Your task to perform on an android device: Open Yahoo.com Image 0: 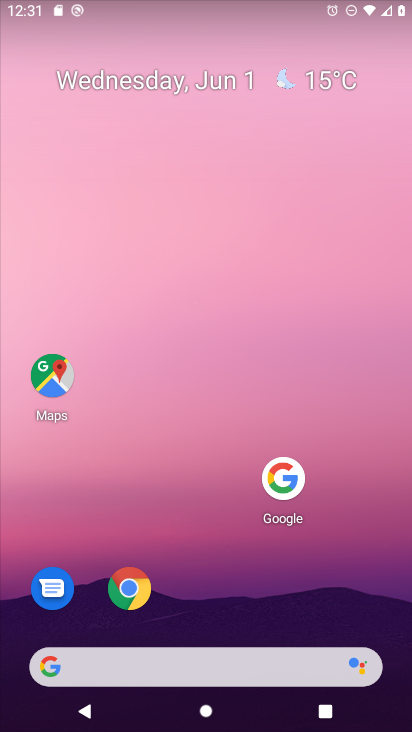
Step 0: press home button
Your task to perform on an android device: Open Yahoo.com Image 1: 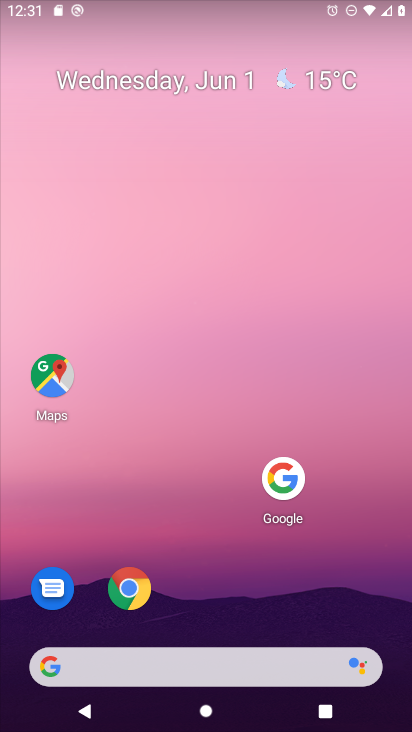
Step 1: click (124, 581)
Your task to perform on an android device: Open Yahoo.com Image 2: 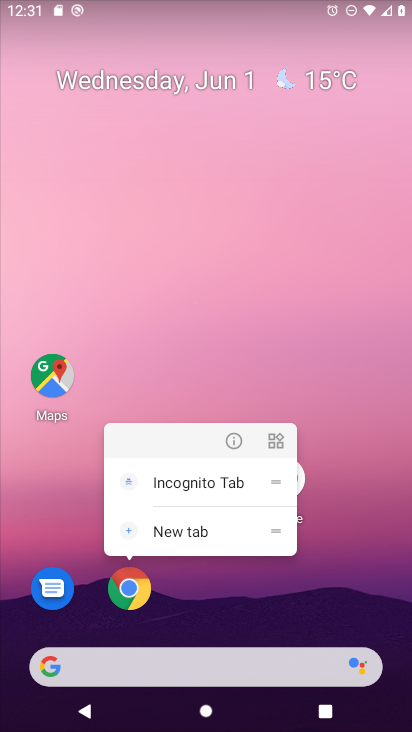
Step 2: click (136, 594)
Your task to perform on an android device: Open Yahoo.com Image 3: 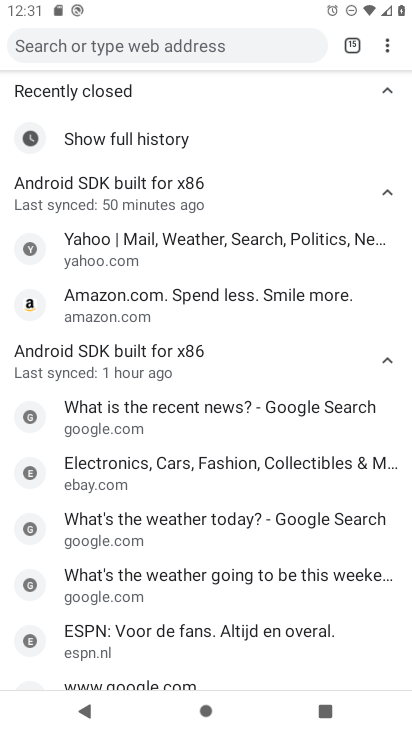
Step 3: drag from (385, 55) to (258, 78)
Your task to perform on an android device: Open Yahoo.com Image 4: 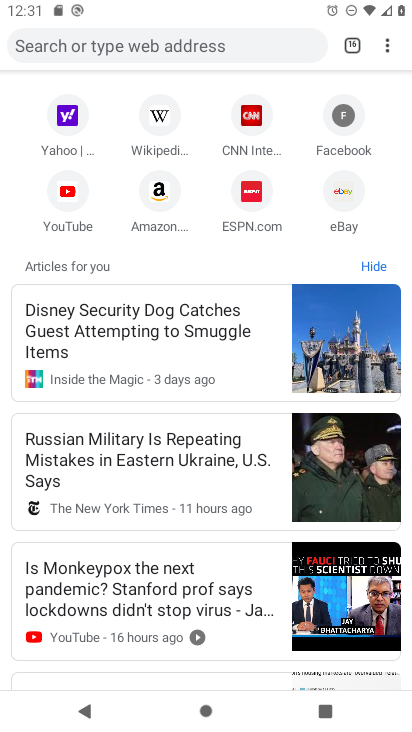
Step 4: click (68, 108)
Your task to perform on an android device: Open Yahoo.com Image 5: 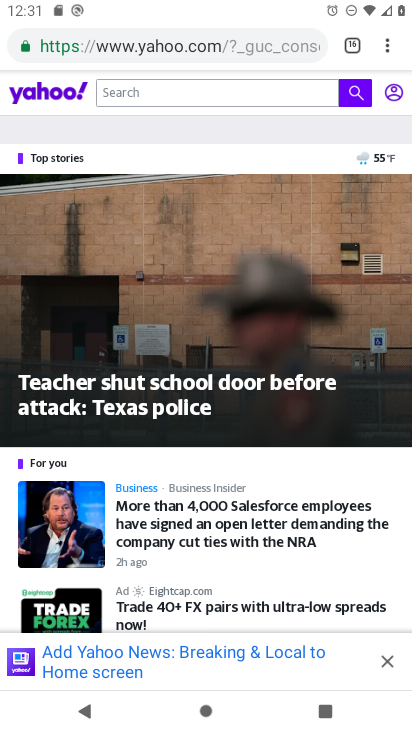
Step 5: task complete